Your task to perform on an android device: clear all cookies in the chrome app Image 0: 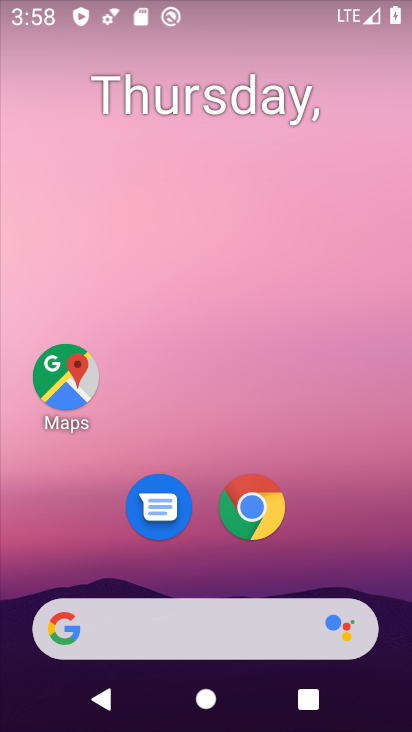
Step 0: click (246, 501)
Your task to perform on an android device: clear all cookies in the chrome app Image 1: 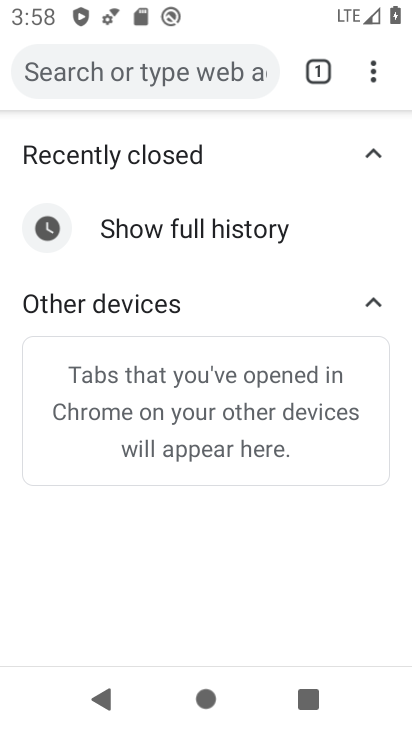
Step 1: drag from (369, 73) to (132, 491)
Your task to perform on an android device: clear all cookies in the chrome app Image 2: 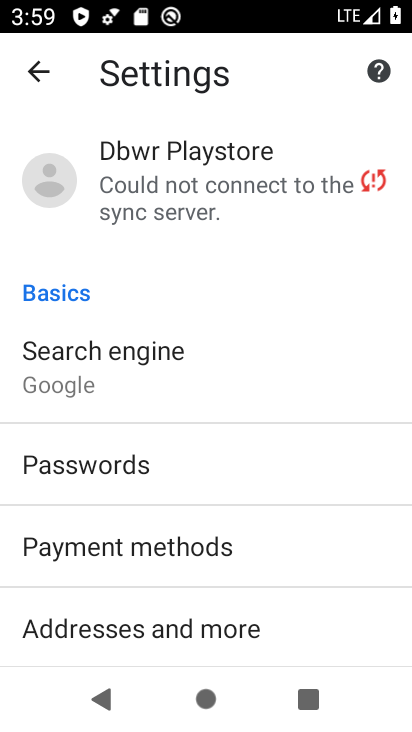
Step 2: drag from (287, 546) to (285, 163)
Your task to perform on an android device: clear all cookies in the chrome app Image 3: 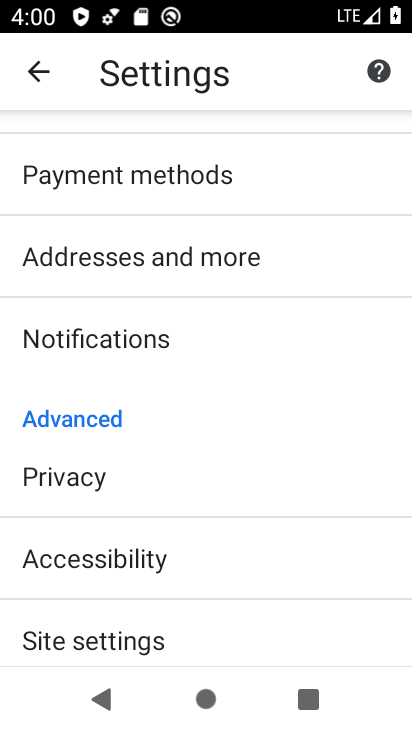
Step 3: drag from (172, 558) to (245, 405)
Your task to perform on an android device: clear all cookies in the chrome app Image 4: 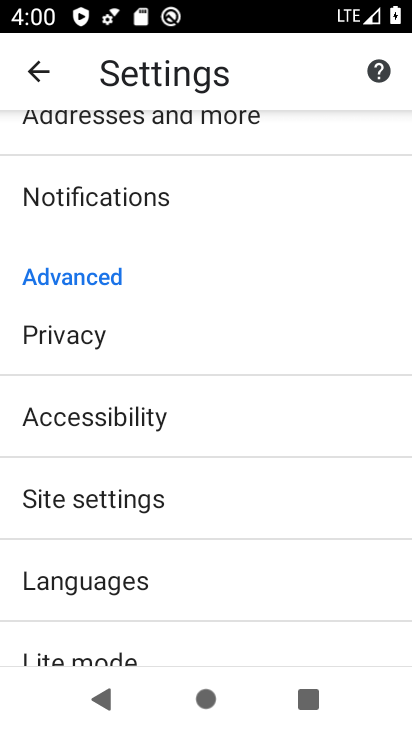
Step 4: click (161, 343)
Your task to perform on an android device: clear all cookies in the chrome app Image 5: 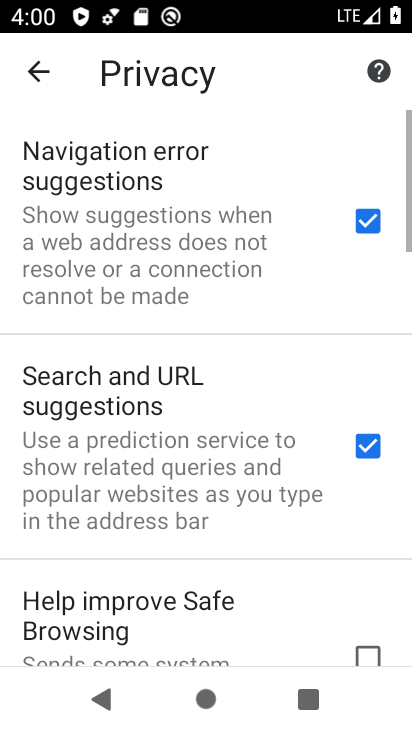
Step 5: drag from (158, 610) to (245, 140)
Your task to perform on an android device: clear all cookies in the chrome app Image 6: 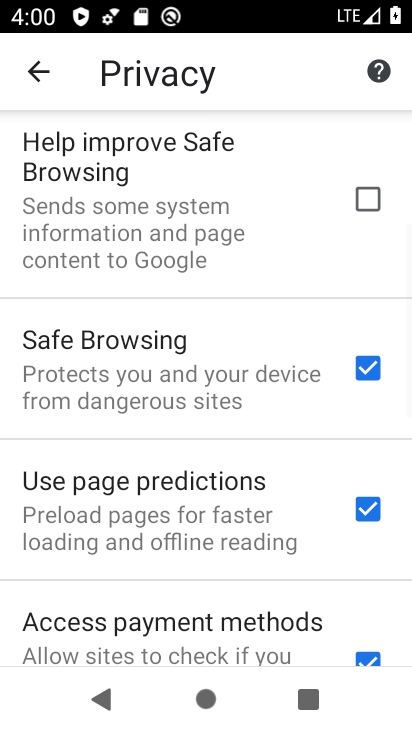
Step 6: drag from (215, 500) to (259, 100)
Your task to perform on an android device: clear all cookies in the chrome app Image 7: 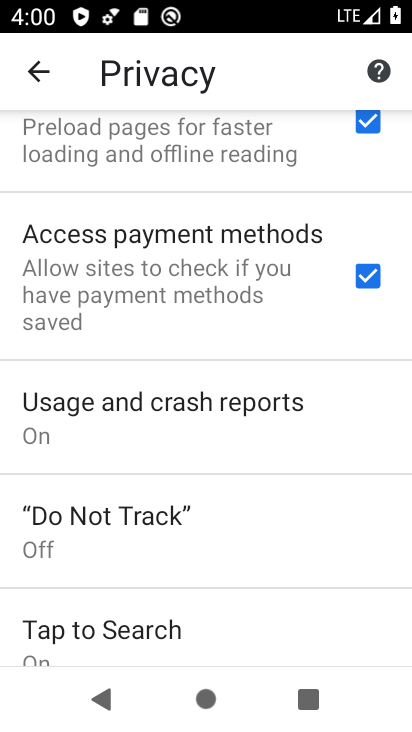
Step 7: drag from (186, 513) to (217, 81)
Your task to perform on an android device: clear all cookies in the chrome app Image 8: 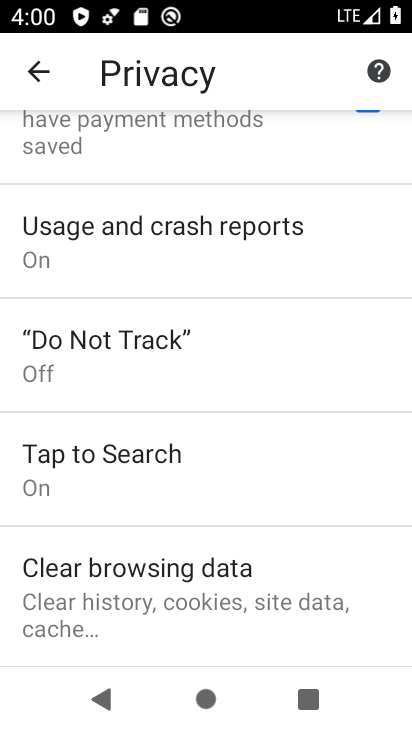
Step 8: click (169, 583)
Your task to perform on an android device: clear all cookies in the chrome app Image 9: 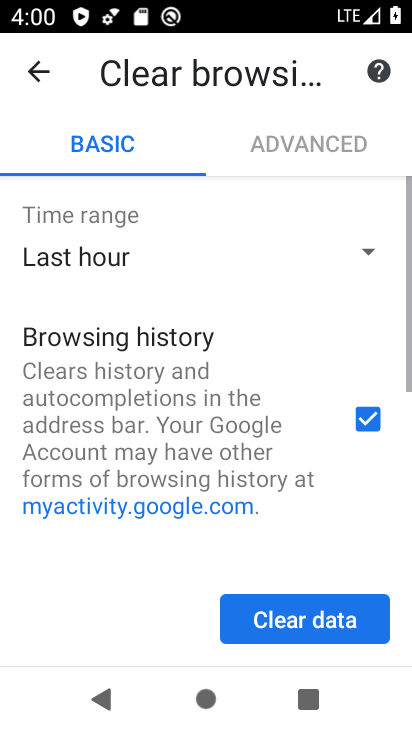
Step 9: click (244, 645)
Your task to perform on an android device: clear all cookies in the chrome app Image 10: 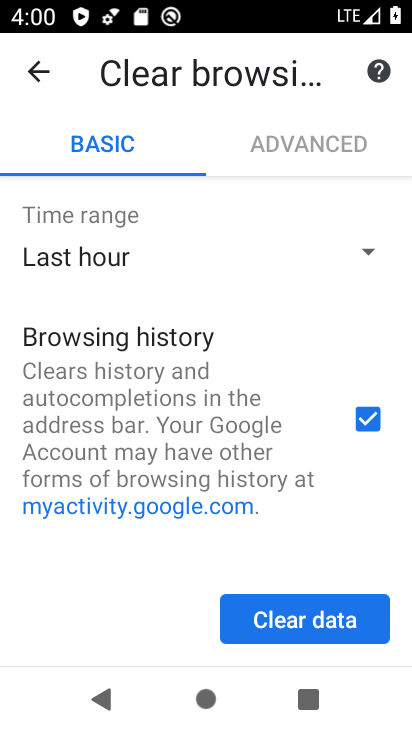
Step 10: click (364, 258)
Your task to perform on an android device: clear all cookies in the chrome app Image 11: 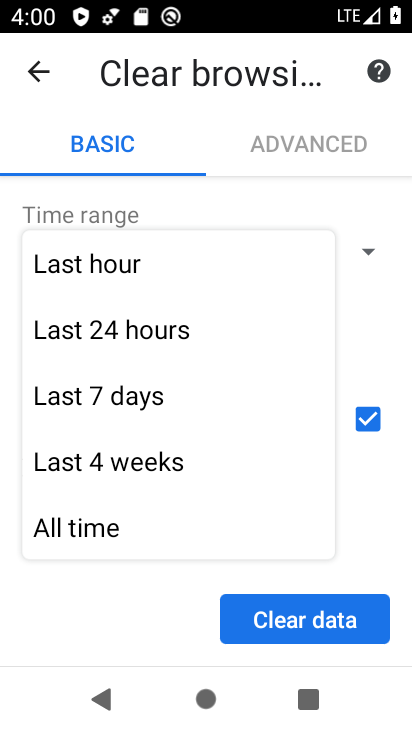
Step 11: click (393, 355)
Your task to perform on an android device: clear all cookies in the chrome app Image 12: 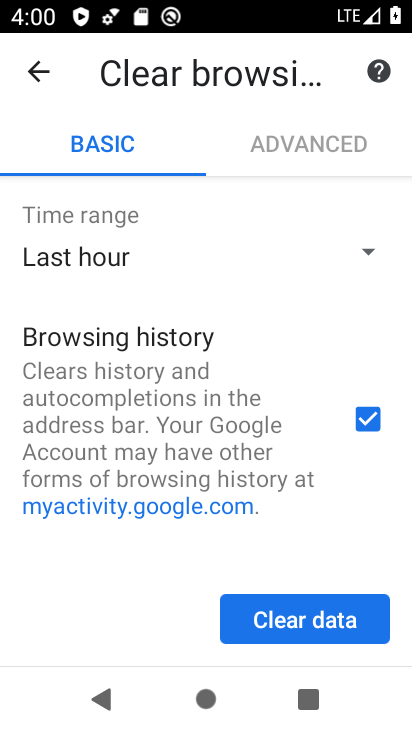
Step 12: drag from (359, 483) to (386, 259)
Your task to perform on an android device: clear all cookies in the chrome app Image 13: 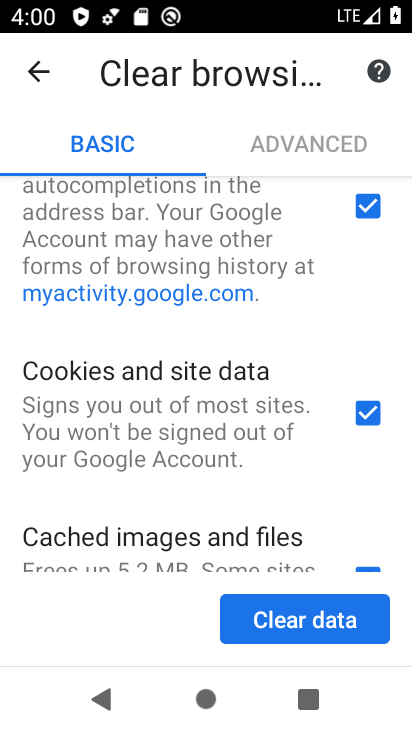
Step 13: click (298, 648)
Your task to perform on an android device: clear all cookies in the chrome app Image 14: 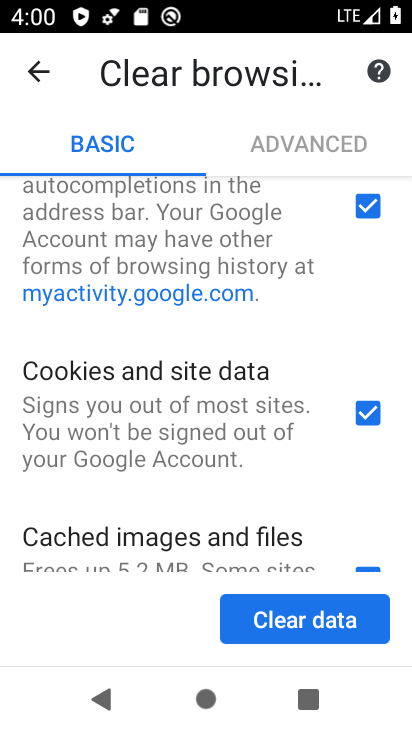
Step 14: click (297, 633)
Your task to perform on an android device: clear all cookies in the chrome app Image 15: 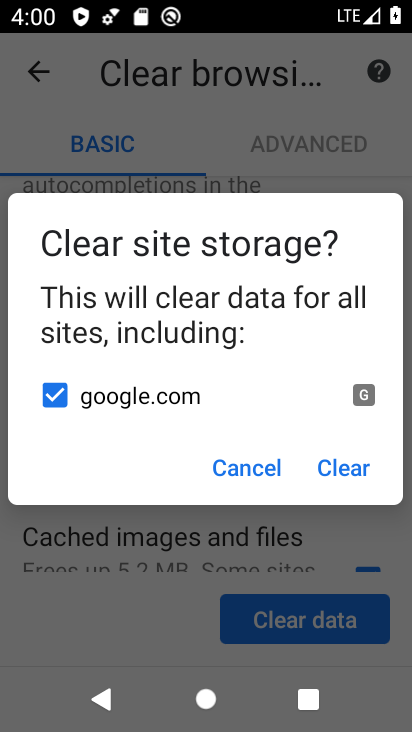
Step 15: click (339, 456)
Your task to perform on an android device: clear all cookies in the chrome app Image 16: 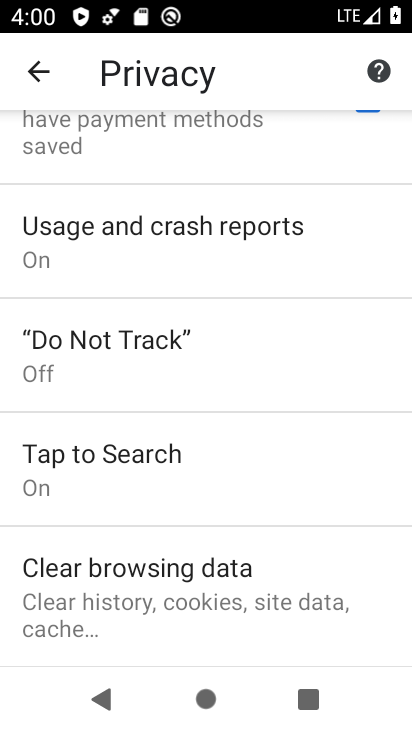
Step 16: task complete